Your task to perform on an android device: Empty the shopping cart on bestbuy. Add "logitech g pro" to the cart on bestbuy Image 0: 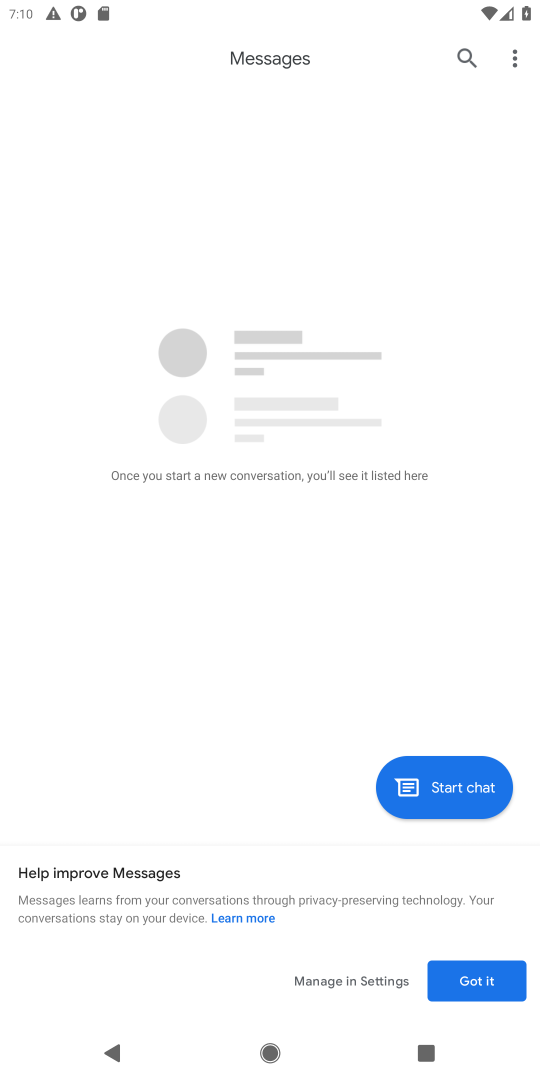
Step 0: press home button
Your task to perform on an android device: Empty the shopping cart on bestbuy. Add "logitech g pro" to the cart on bestbuy Image 1: 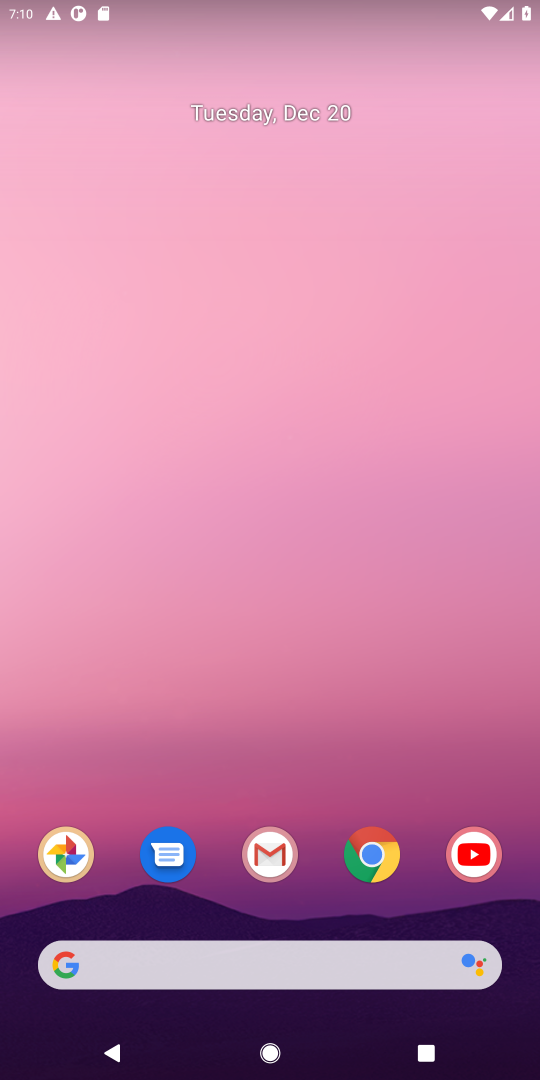
Step 1: click (374, 862)
Your task to perform on an android device: Empty the shopping cart on bestbuy. Add "logitech g pro" to the cart on bestbuy Image 2: 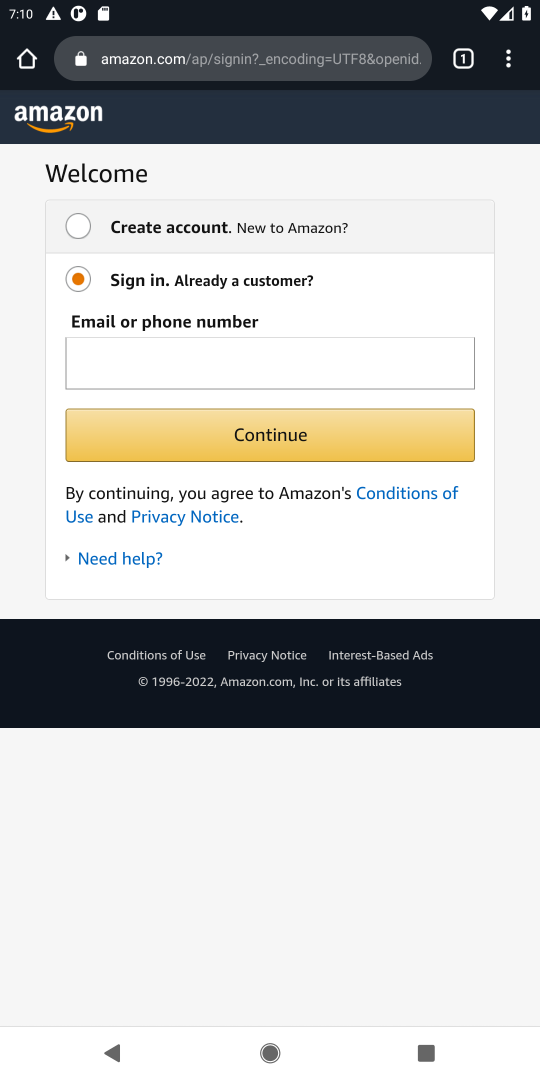
Step 2: click (206, 62)
Your task to perform on an android device: Empty the shopping cart on bestbuy. Add "logitech g pro" to the cart on bestbuy Image 3: 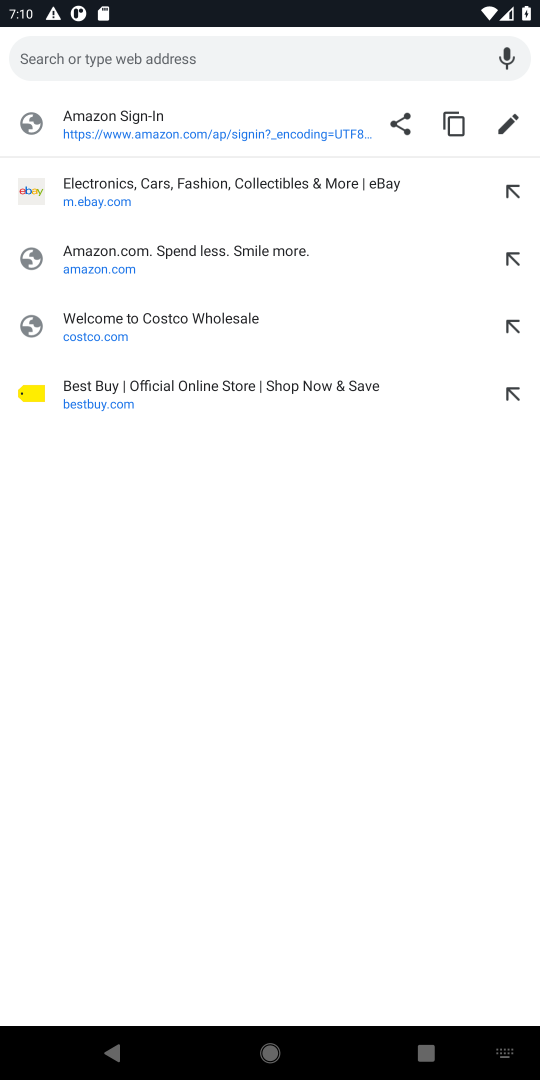
Step 3: click (101, 404)
Your task to perform on an android device: Empty the shopping cart on bestbuy. Add "logitech g pro" to the cart on bestbuy Image 4: 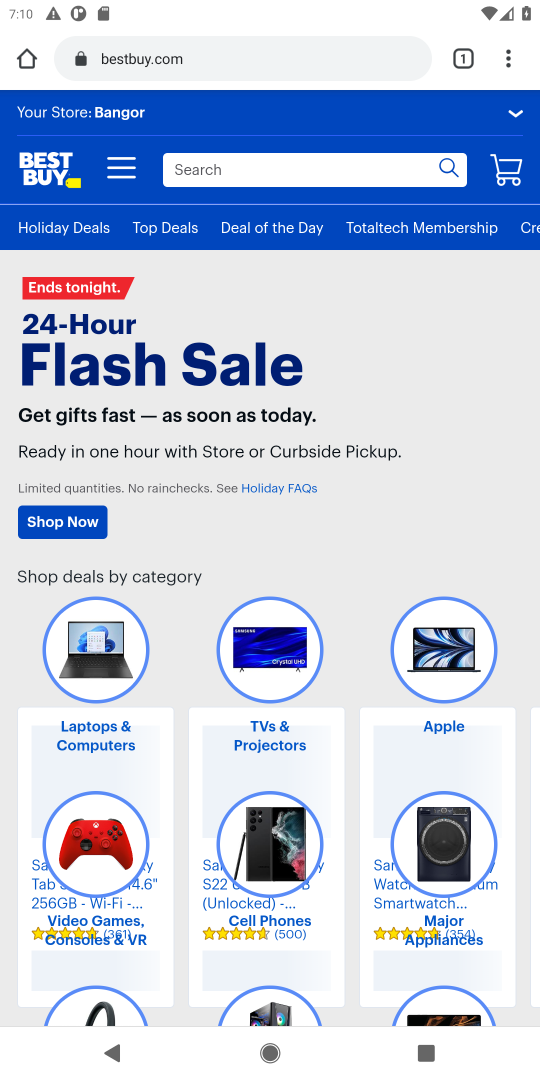
Step 4: click (502, 179)
Your task to perform on an android device: Empty the shopping cart on bestbuy. Add "logitech g pro" to the cart on bestbuy Image 5: 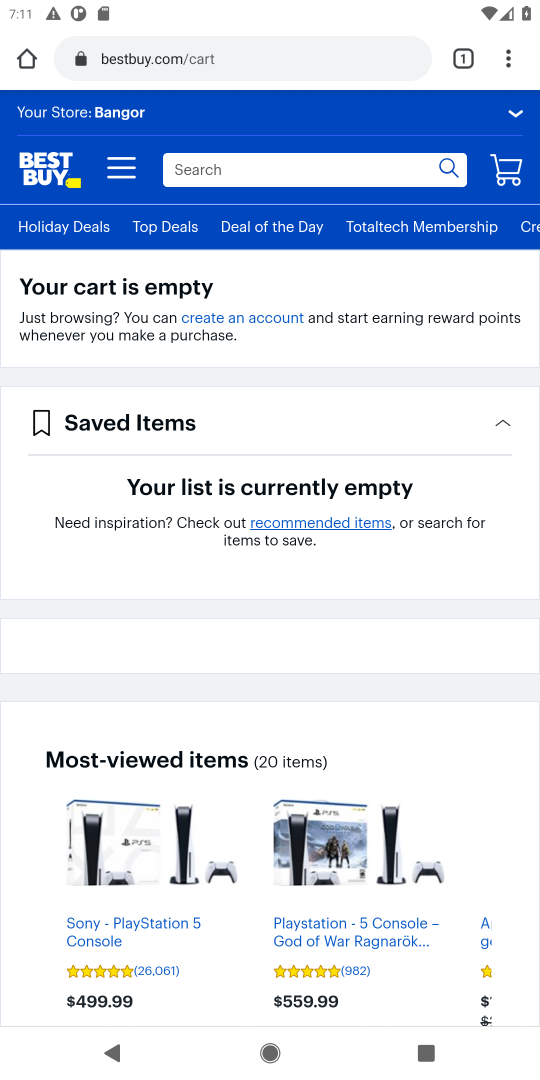
Step 5: click (212, 183)
Your task to perform on an android device: Empty the shopping cart on bestbuy. Add "logitech g pro" to the cart on bestbuy Image 6: 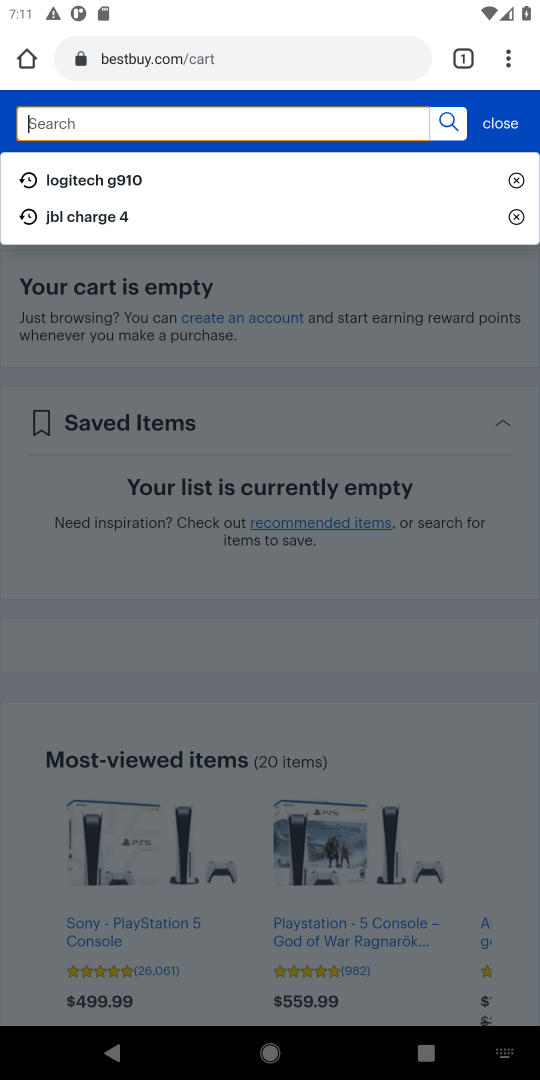
Step 6: type "logitech g pro"
Your task to perform on an android device: Empty the shopping cart on bestbuy. Add "logitech g pro" to the cart on bestbuy Image 7: 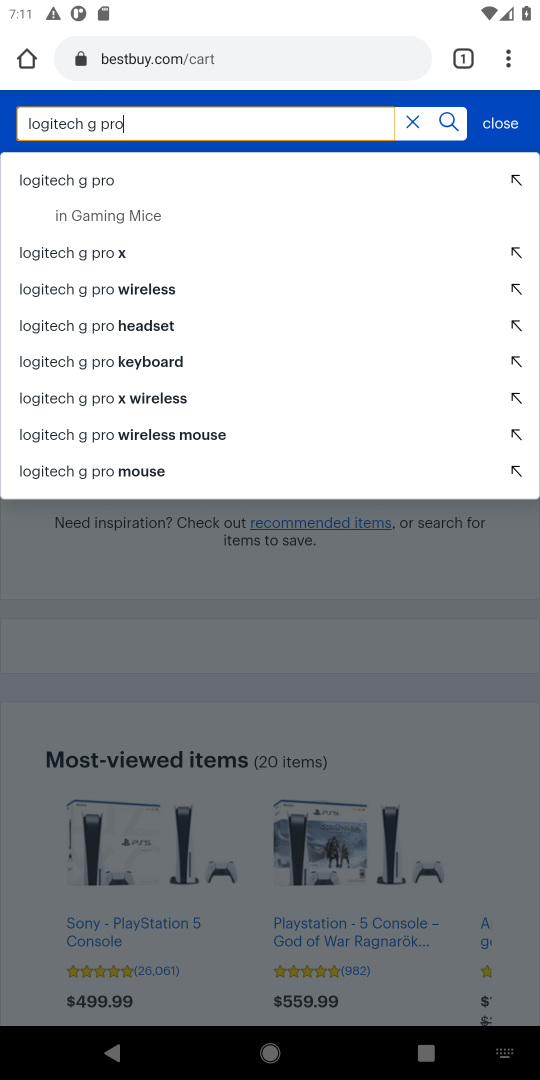
Step 7: click (42, 190)
Your task to perform on an android device: Empty the shopping cart on bestbuy. Add "logitech g pro" to the cart on bestbuy Image 8: 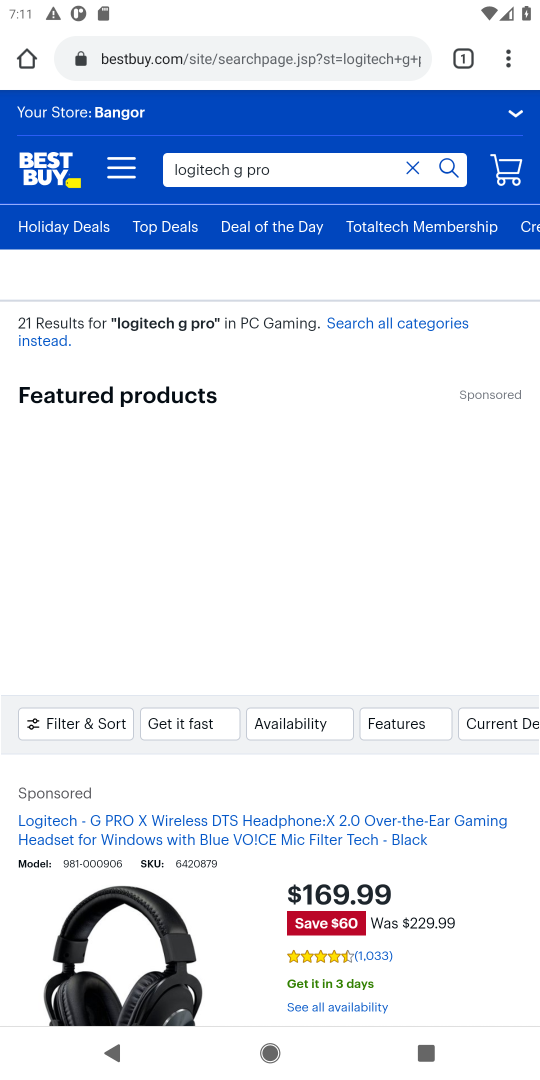
Step 8: drag from (144, 791) to (207, 411)
Your task to perform on an android device: Empty the shopping cart on bestbuy. Add "logitech g pro" to the cart on bestbuy Image 9: 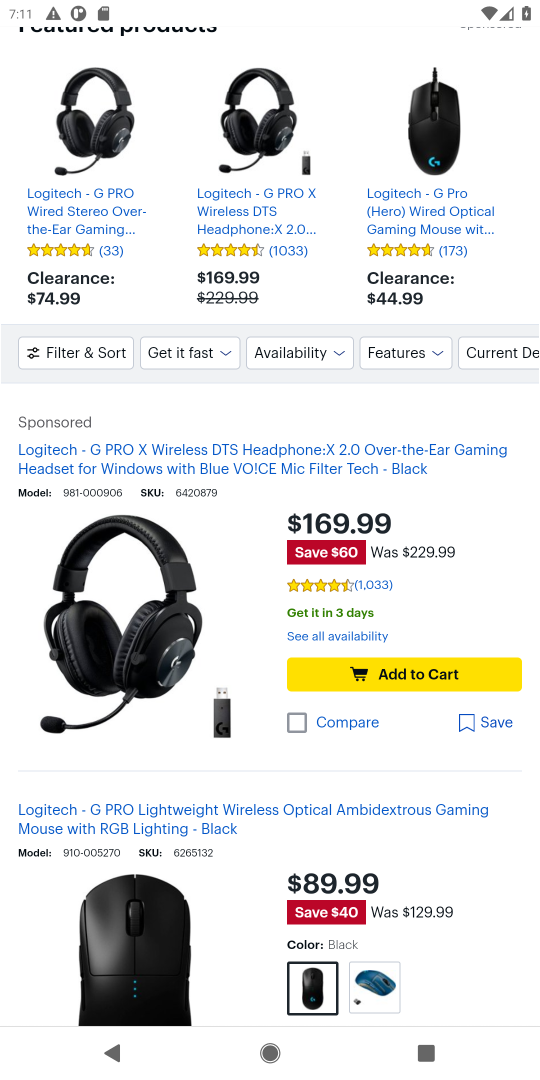
Step 9: click (375, 668)
Your task to perform on an android device: Empty the shopping cart on bestbuy. Add "logitech g pro" to the cart on bestbuy Image 10: 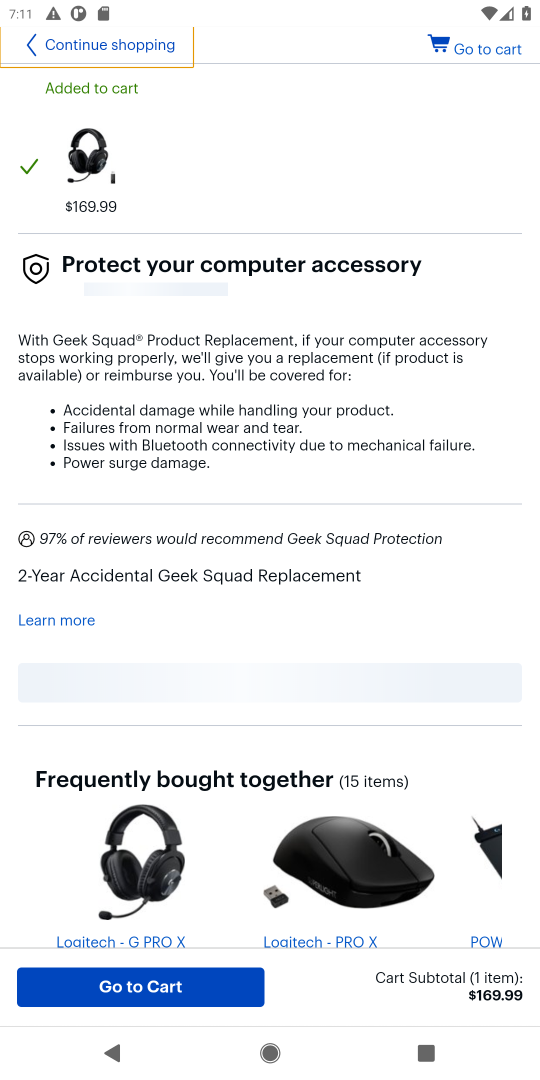
Step 10: task complete